Your task to perform on an android device: Search for vegetarian restaurants on Maps Image 0: 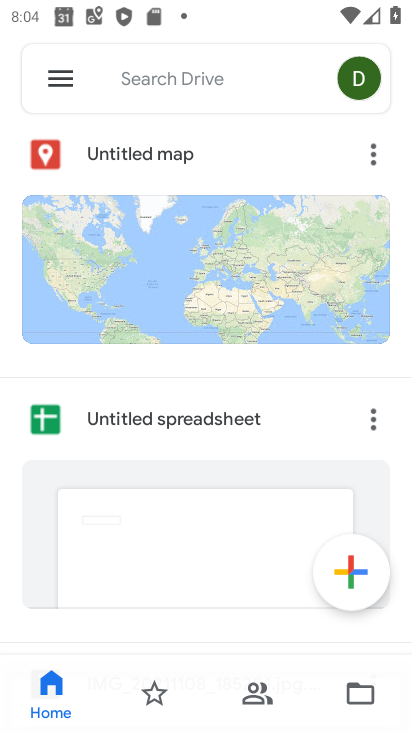
Step 0: press home button
Your task to perform on an android device: Search for vegetarian restaurants on Maps Image 1: 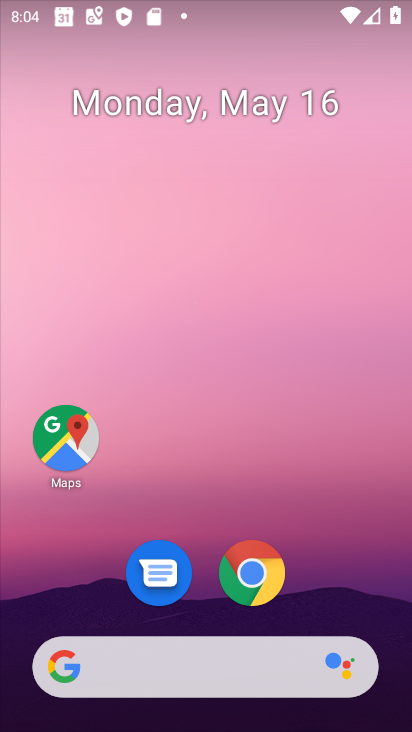
Step 1: click (61, 448)
Your task to perform on an android device: Search for vegetarian restaurants on Maps Image 2: 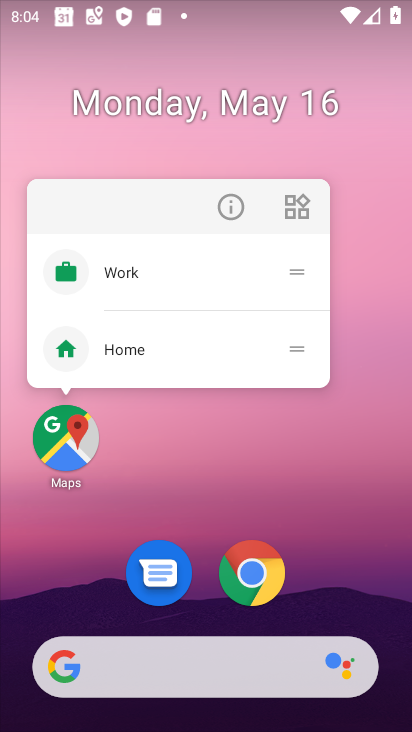
Step 2: click (61, 447)
Your task to perform on an android device: Search for vegetarian restaurants on Maps Image 3: 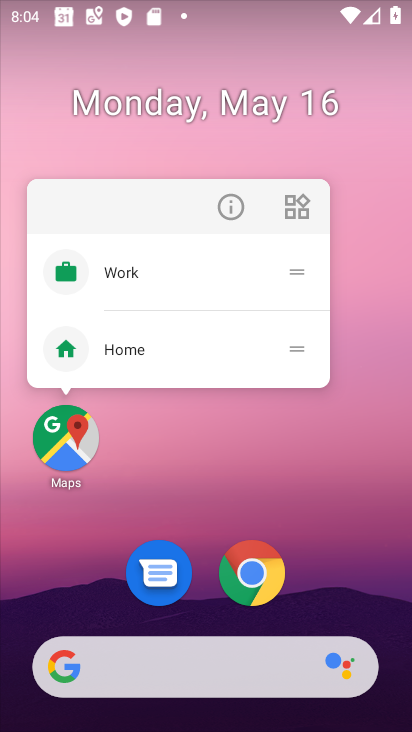
Step 3: click (61, 443)
Your task to perform on an android device: Search for vegetarian restaurants on Maps Image 4: 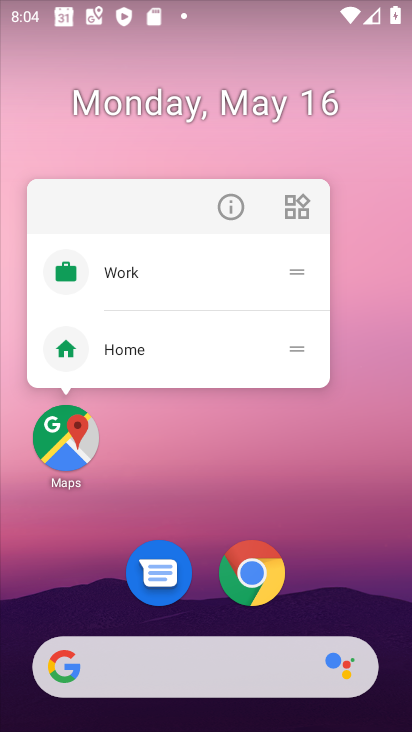
Step 4: click (61, 443)
Your task to perform on an android device: Search for vegetarian restaurants on Maps Image 5: 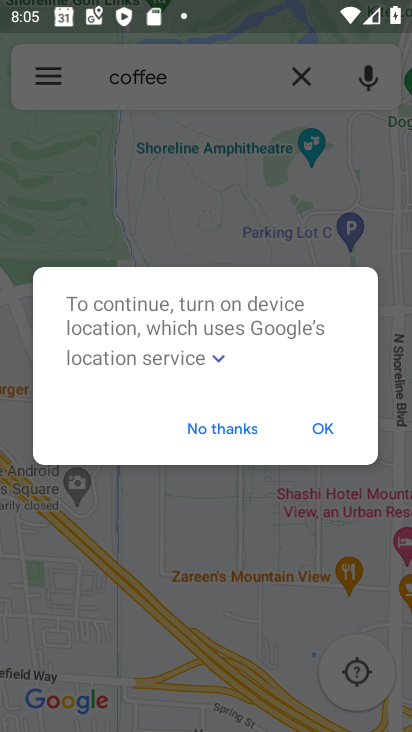
Step 5: click (207, 439)
Your task to perform on an android device: Search for vegetarian restaurants on Maps Image 6: 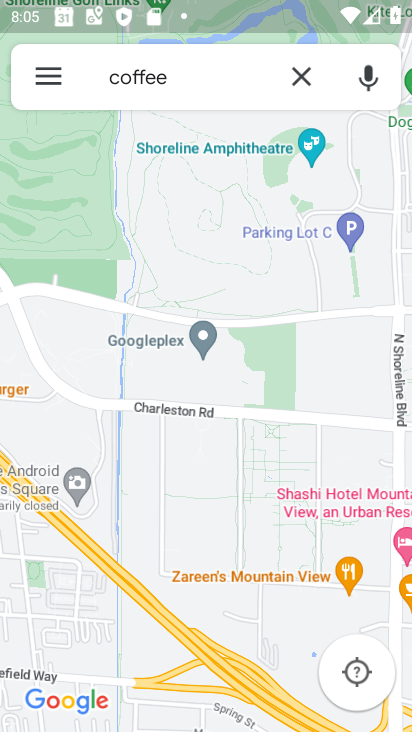
Step 6: click (303, 73)
Your task to perform on an android device: Search for vegetarian restaurants on Maps Image 7: 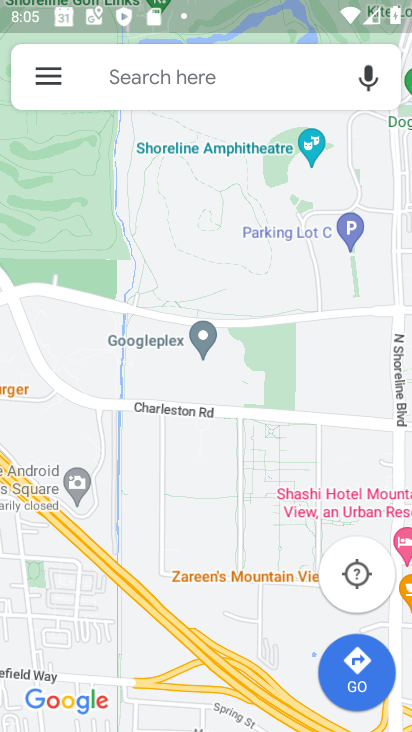
Step 7: click (303, 73)
Your task to perform on an android device: Search for vegetarian restaurants on Maps Image 8: 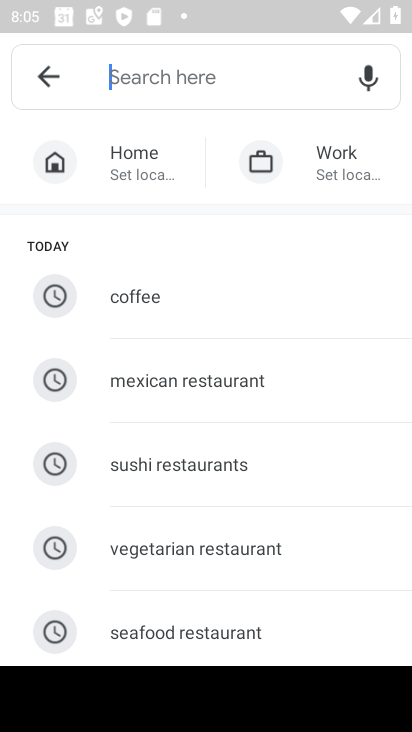
Step 8: click (190, 550)
Your task to perform on an android device: Search for vegetarian restaurants on Maps Image 9: 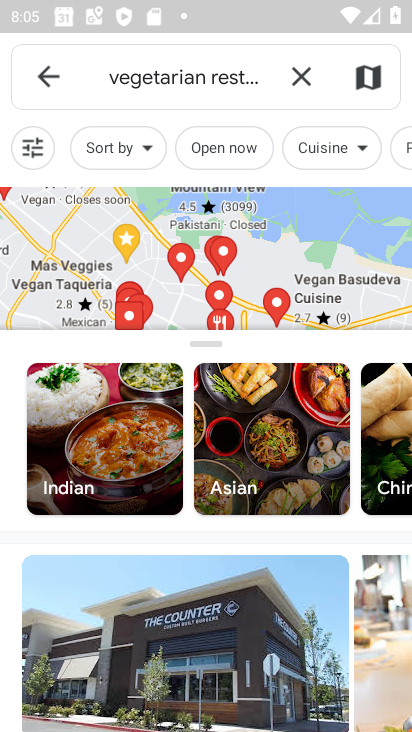
Step 9: task complete